Your task to perform on an android device: turn off location history Image 0: 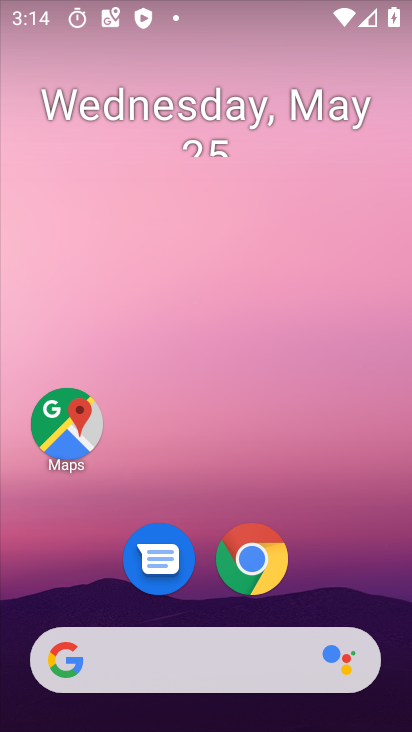
Step 0: drag from (200, 591) to (257, 31)
Your task to perform on an android device: turn off location history Image 1: 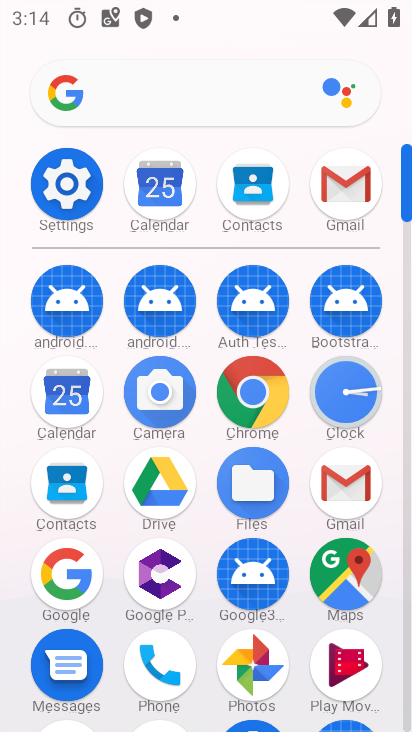
Step 1: click (71, 180)
Your task to perform on an android device: turn off location history Image 2: 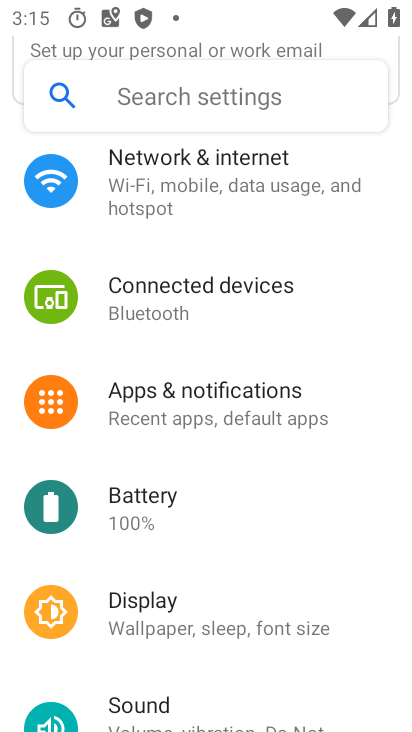
Step 2: drag from (208, 556) to (241, 105)
Your task to perform on an android device: turn off location history Image 3: 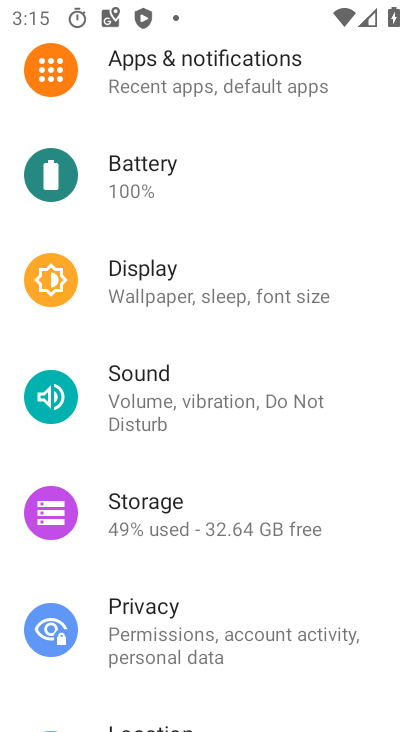
Step 3: drag from (218, 479) to (252, 232)
Your task to perform on an android device: turn off location history Image 4: 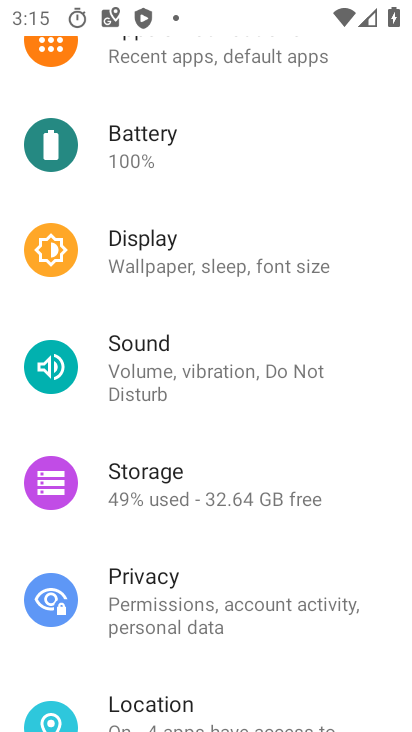
Step 4: click (283, 716)
Your task to perform on an android device: turn off location history Image 5: 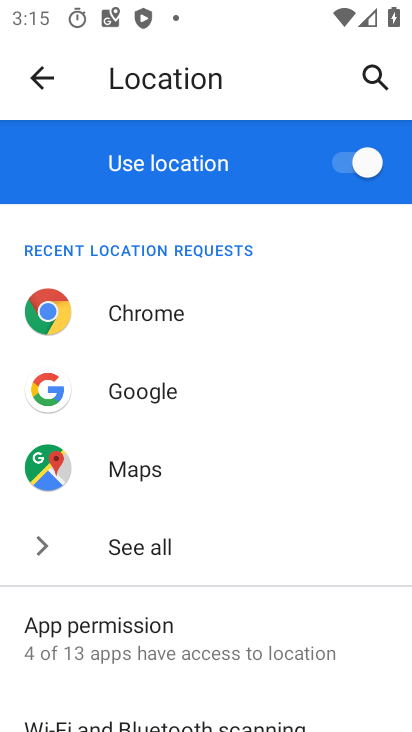
Step 5: drag from (200, 667) to (234, 274)
Your task to perform on an android device: turn off location history Image 6: 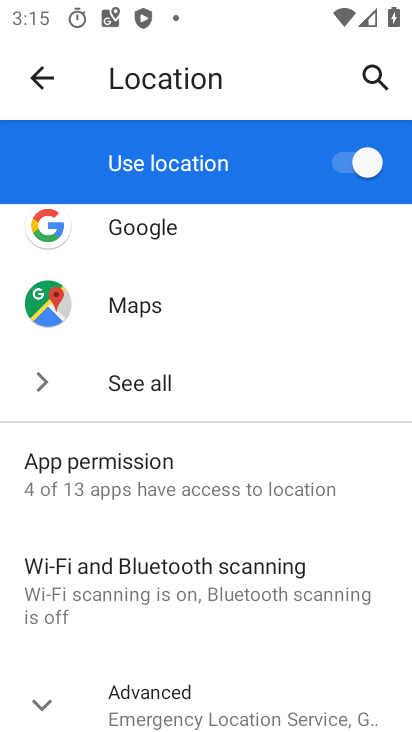
Step 6: click (76, 700)
Your task to perform on an android device: turn off location history Image 7: 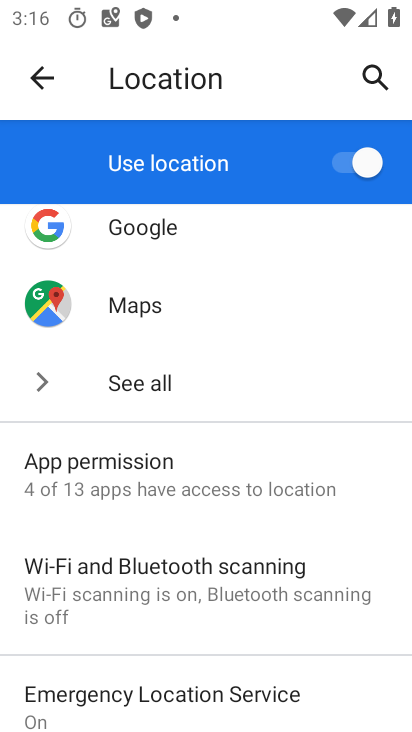
Step 7: drag from (229, 662) to (228, 347)
Your task to perform on an android device: turn off location history Image 8: 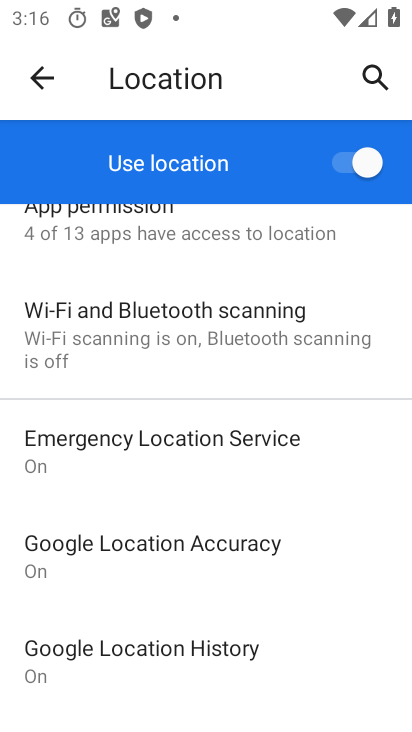
Step 8: click (137, 663)
Your task to perform on an android device: turn off location history Image 9: 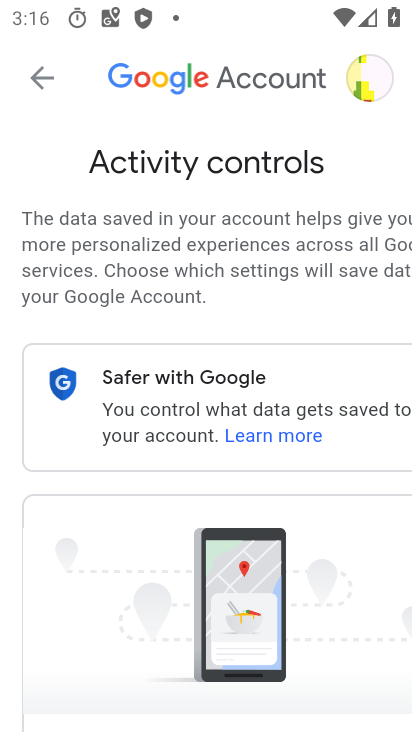
Step 9: drag from (126, 603) to (142, 323)
Your task to perform on an android device: turn off location history Image 10: 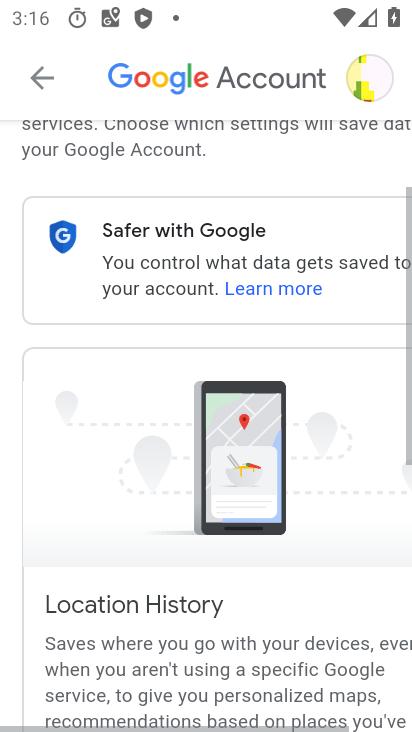
Step 10: drag from (145, 216) to (146, 169)
Your task to perform on an android device: turn off location history Image 11: 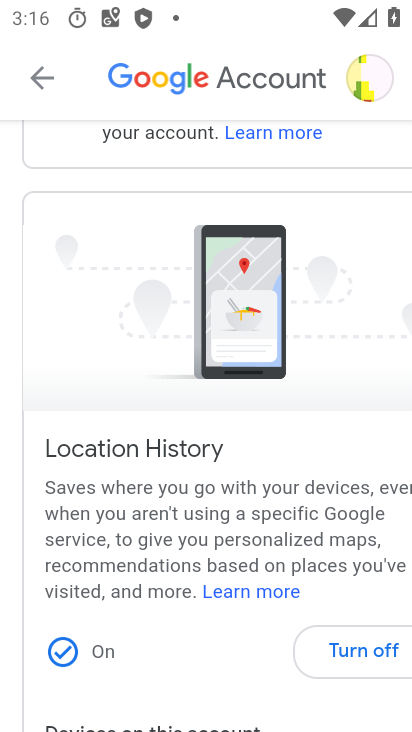
Step 11: drag from (227, 649) to (237, 276)
Your task to perform on an android device: turn off location history Image 12: 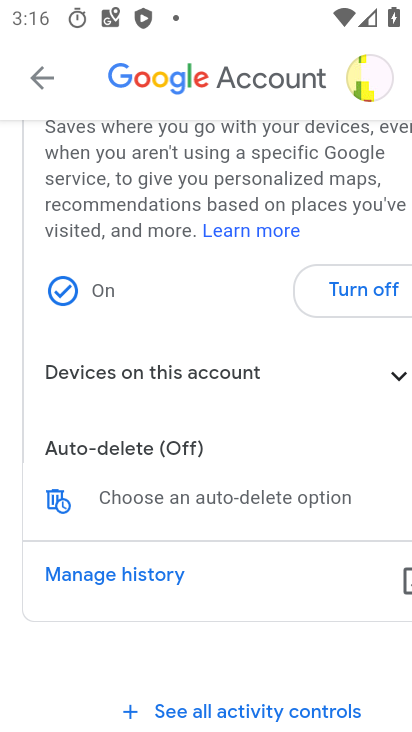
Step 12: click (374, 278)
Your task to perform on an android device: turn off location history Image 13: 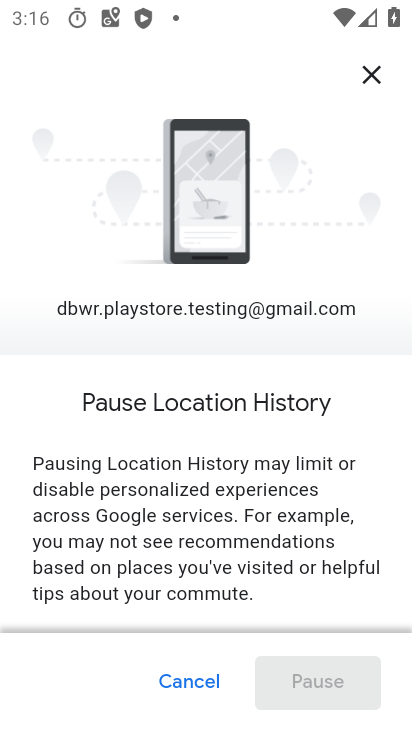
Step 13: drag from (297, 584) to (342, 120)
Your task to perform on an android device: turn off location history Image 14: 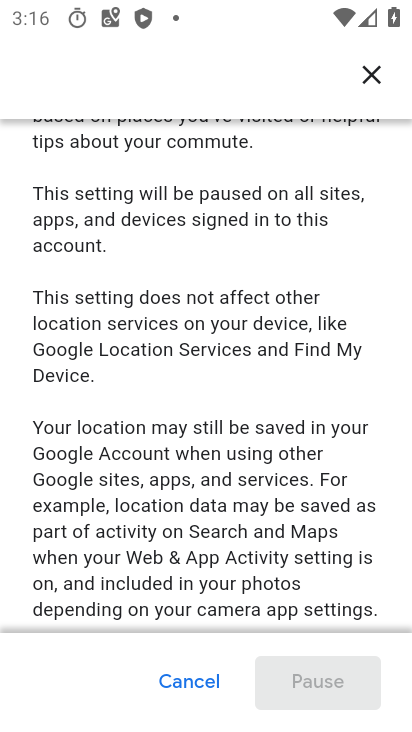
Step 14: drag from (279, 582) to (330, 172)
Your task to perform on an android device: turn off location history Image 15: 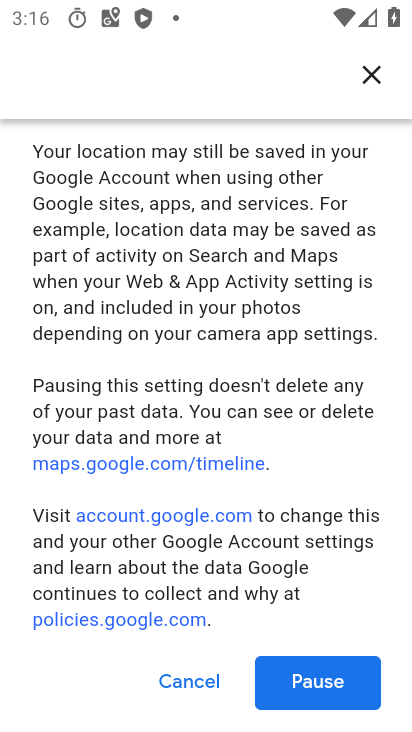
Step 15: click (325, 684)
Your task to perform on an android device: turn off location history Image 16: 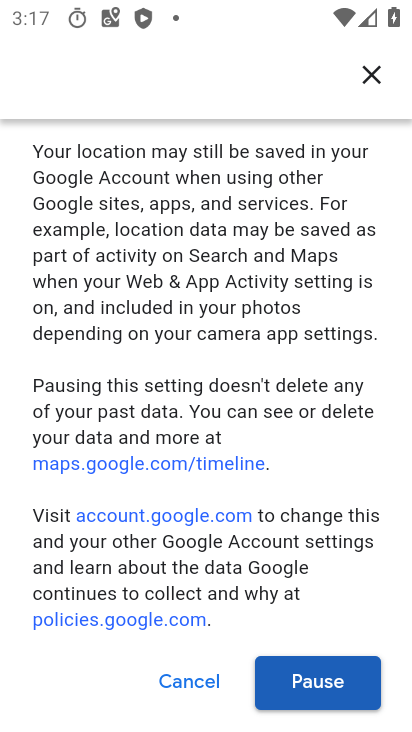
Step 16: click (316, 675)
Your task to perform on an android device: turn off location history Image 17: 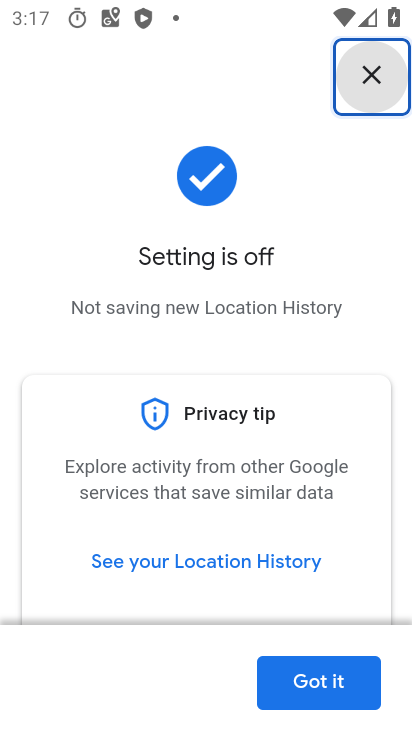
Step 17: click (314, 683)
Your task to perform on an android device: turn off location history Image 18: 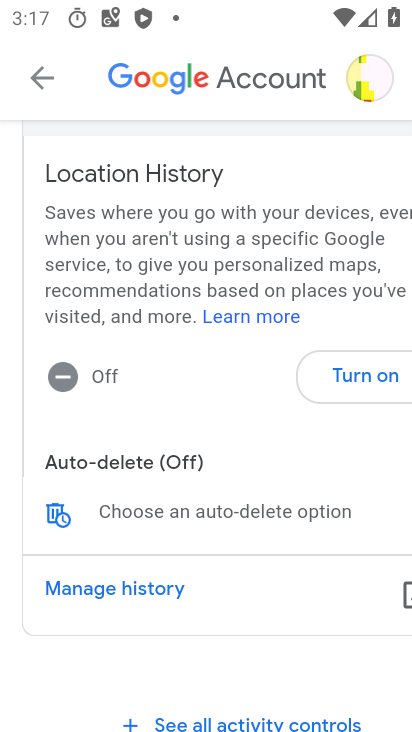
Step 18: task complete